Your task to perform on an android device: open sync settings in chrome Image 0: 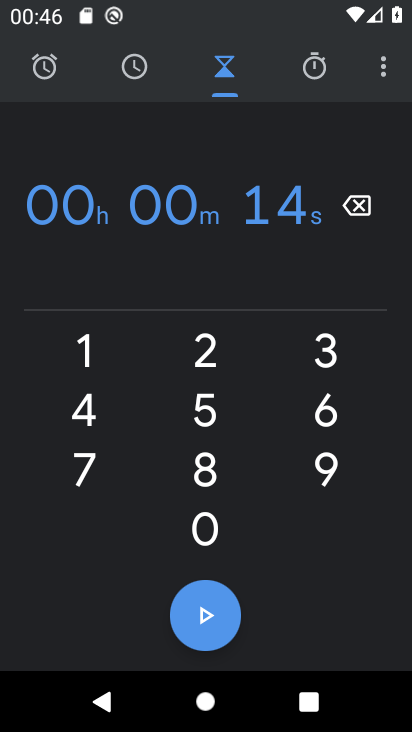
Step 0: press home button
Your task to perform on an android device: open sync settings in chrome Image 1: 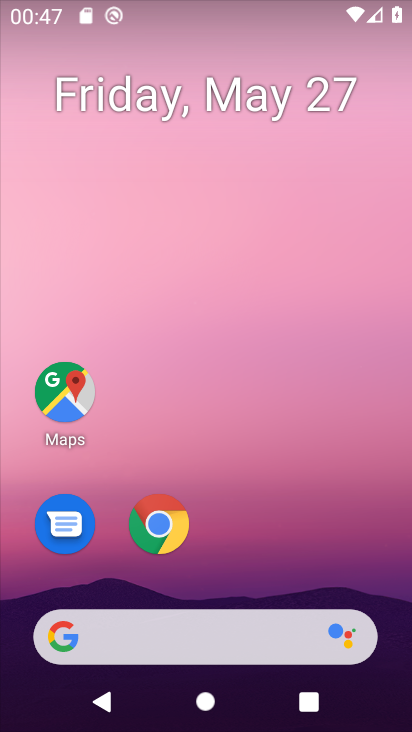
Step 1: click (169, 520)
Your task to perform on an android device: open sync settings in chrome Image 2: 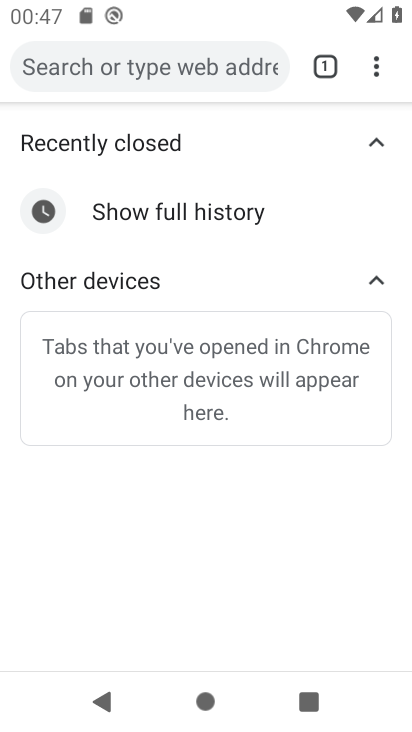
Step 2: click (372, 67)
Your task to perform on an android device: open sync settings in chrome Image 3: 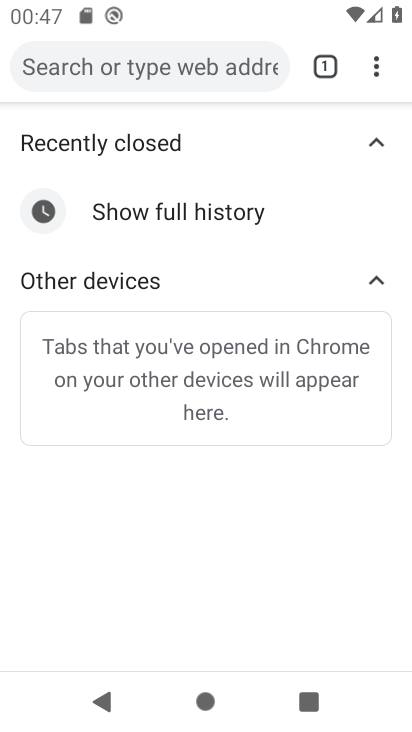
Step 3: click (372, 71)
Your task to perform on an android device: open sync settings in chrome Image 4: 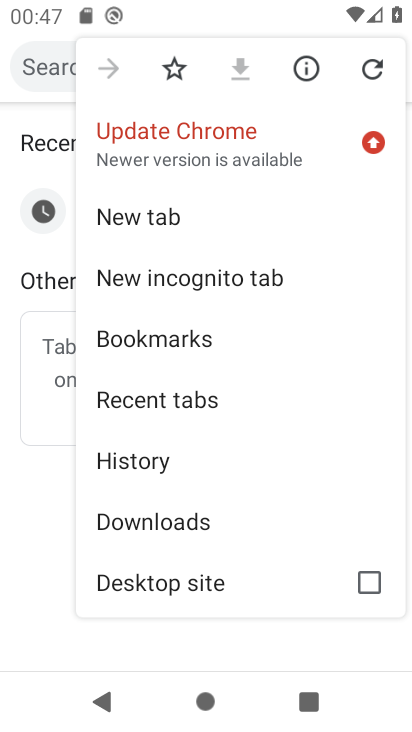
Step 4: drag from (240, 490) to (251, 175)
Your task to perform on an android device: open sync settings in chrome Image 5: 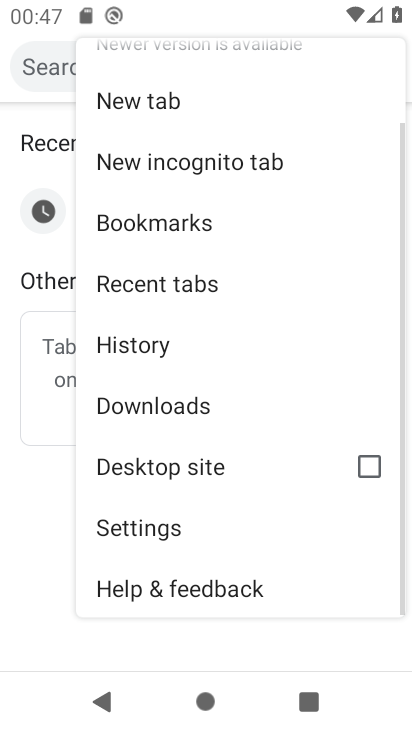
Step 5: click (168, 524)
Your task to perform on an android device: open sync settings in chrome Image 6: 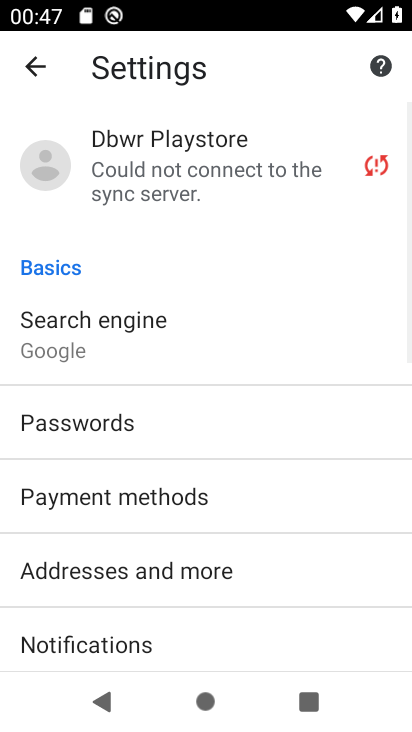
Step 6: click (187, 160)
Your task to perform on an android device: open sync settings in chrome Image 7: 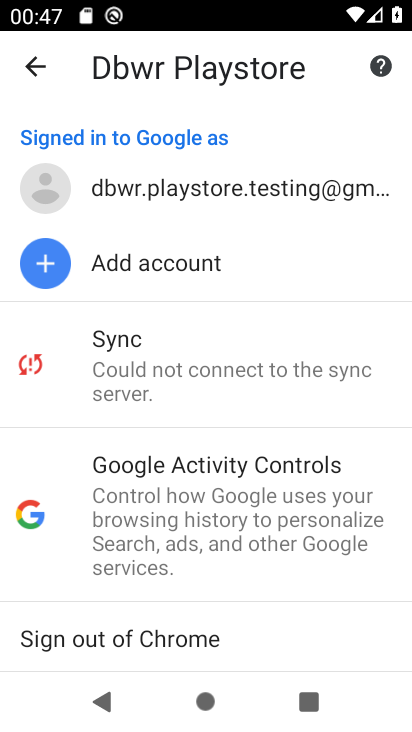
Step 7: click (157, 356)
Your task to perform on an android device: open sync settings in chrome Image 8: 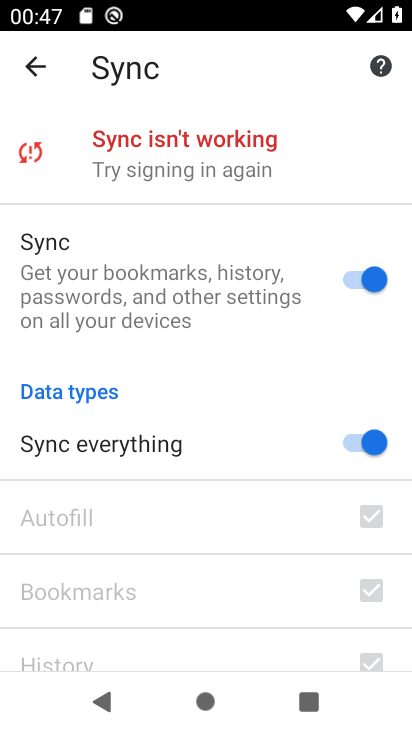
Step 8: task complete